Your task to perform on an android device: Show me recent news Image 0: 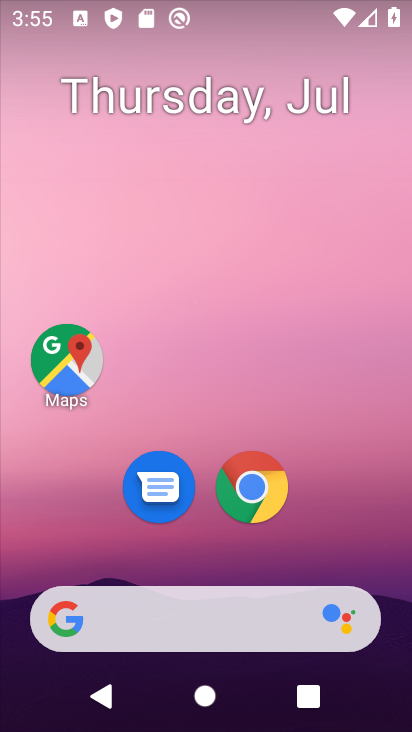
Step 0: drag from (306, 575) to (341, 60)
Your task to perform on an android device: Show me recent news Image 1: 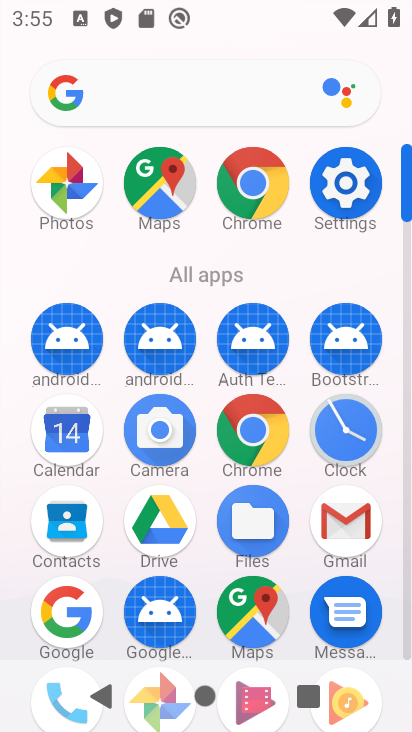
Step 1: drag from (266, 433) to (273, 204)
Your task to perform on an android device: Show me recent news Image 2: 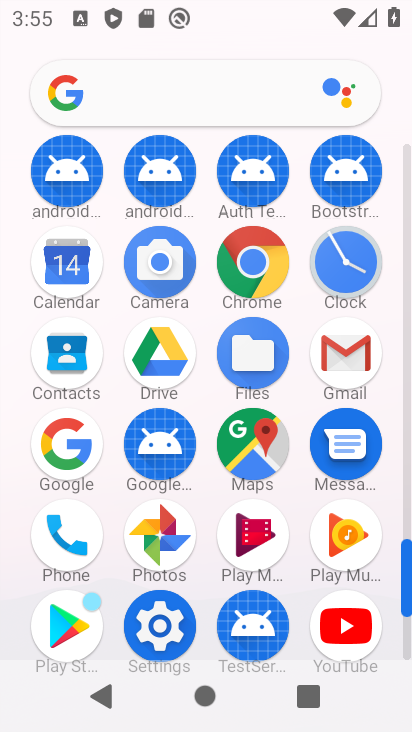
Step 2: click (81, 459)
Your task to perform on an android device: Show me recent news Image 3: 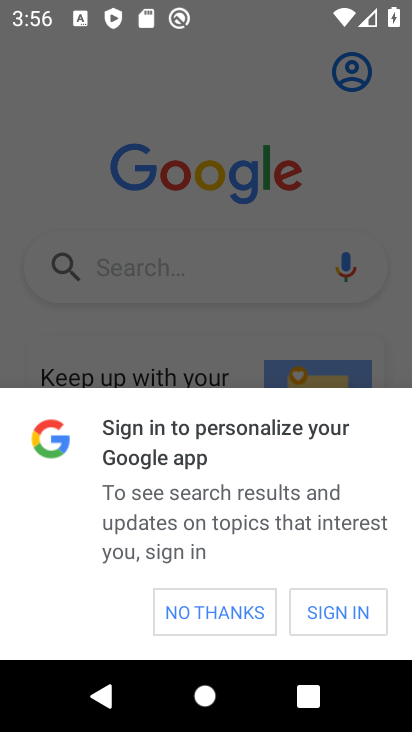
Step 3: click (225, 614)
Your task to perform on an android device: Show me recent news Image 4: 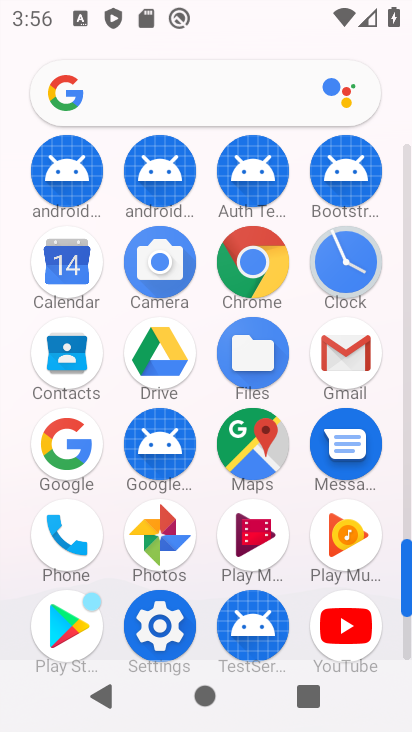
Step 4: click (77, 454)
Your task to perform on an android device: Show me recent news Image 5: 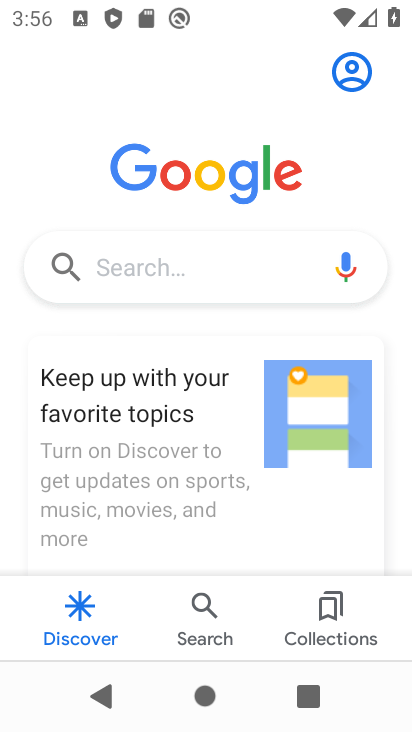
Step 5: click (234, 268)
Your task to perform on an android device: Show me recent news Image 6: 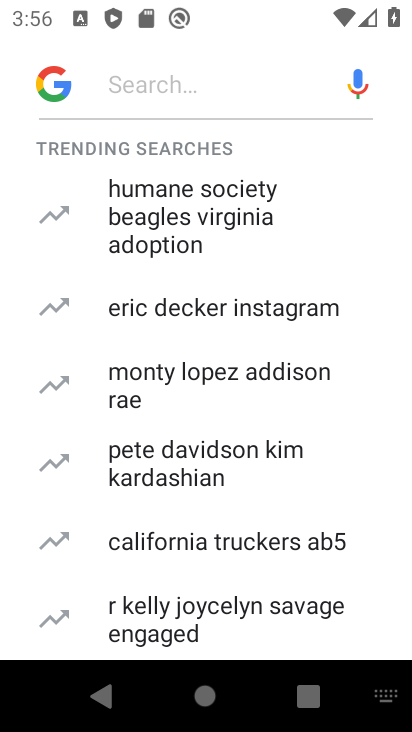
Step 6: type "news"
Your task to perform on an android device: Show me recent news Image 7: 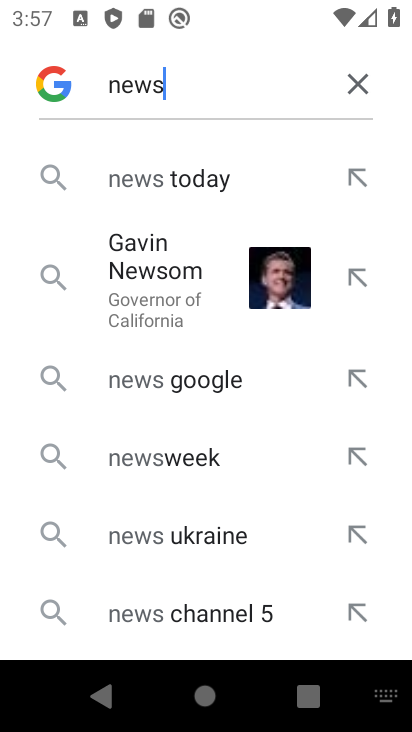
Step 7: click (189, 184)
Your task to perform on an android device: Show me recent news Image 8: 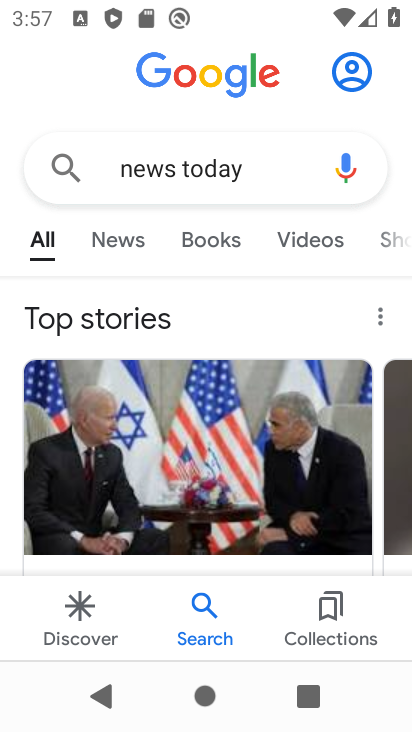
Step 8: click (133, 246)
Your task to perform on an android device: Show me recent news Image 9: 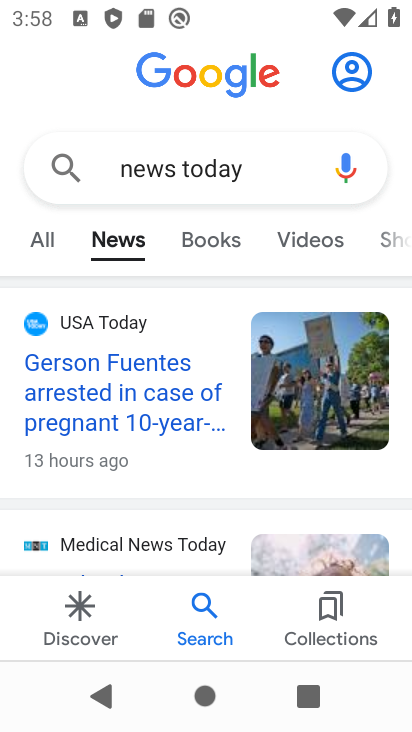
Step 9: task complete